Your task to perform on an android device: Turn off the flashlight Image 0: 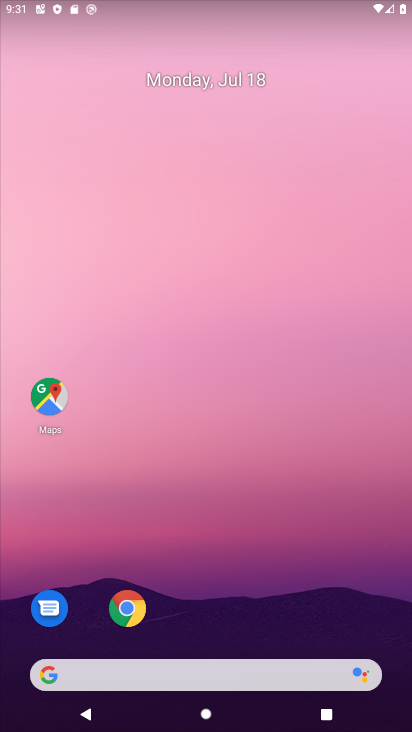
Step 0: drag from (209, 656) to (218, 168)
Your task to perform on an android device: Turn off the flashlight Image 1: 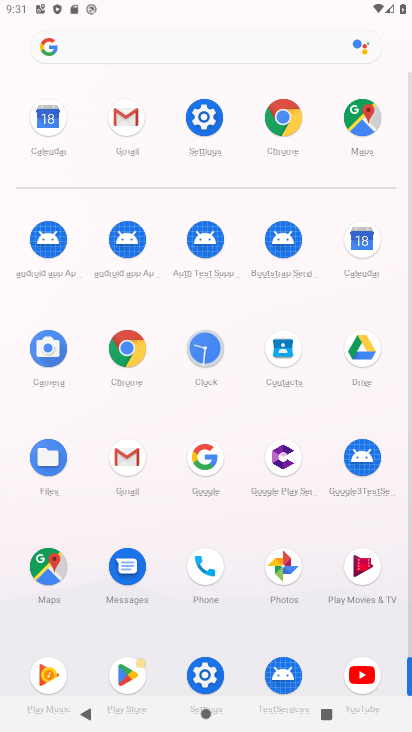
Step 1: click (195, 671)
Your task to perform on an android device: Turn off the flashlight Image 2: 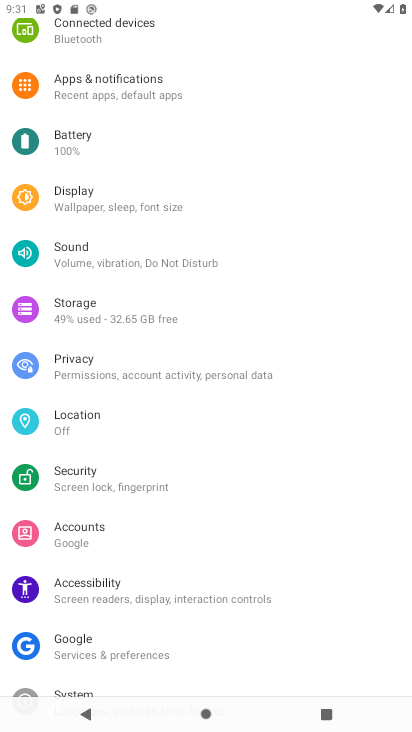
Step 2: drag from (204, 131) to (219, 493)
Your task to perform on an android device: Turn off the flashlight Image 3: 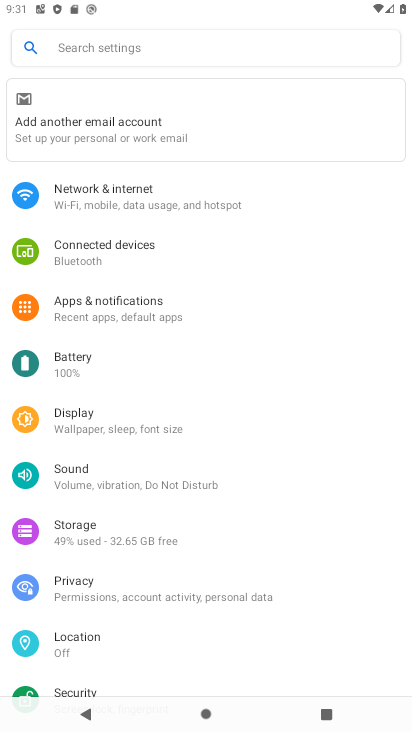
Step 3: click (149, 40)
Your task to perform on an android device: Turn off the flashlight Image 4: 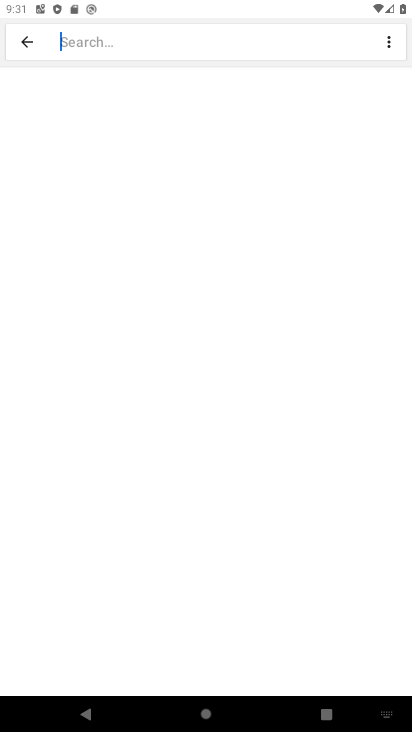
Step 4: type "flashlight"
Your task to perform on an android device: Turn off the flashlight Image 5: 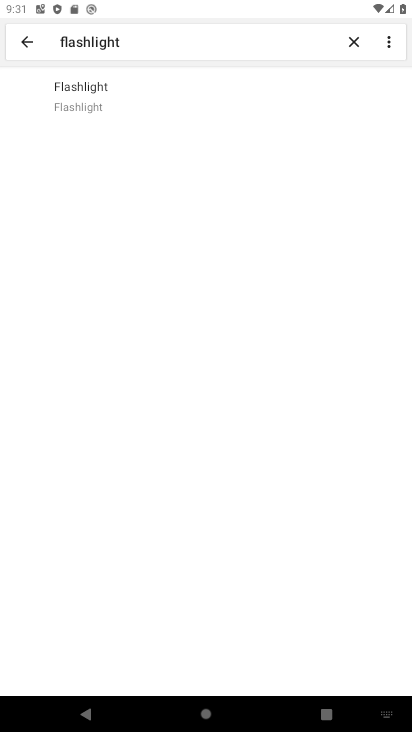
Step 5: click (81, 96)
Your task to perform on an android device: Turn off the flashlight Image 6: 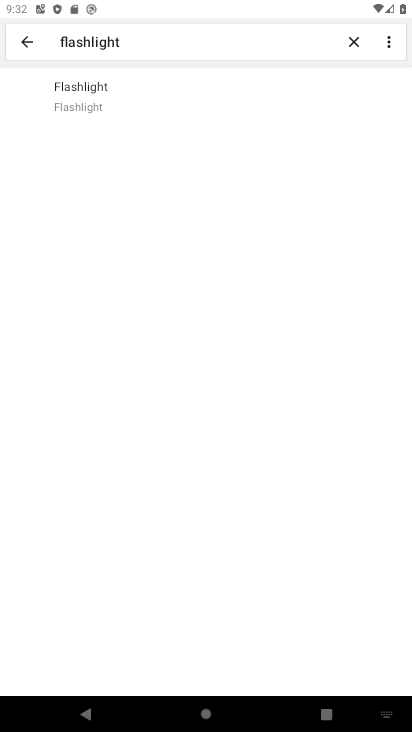
Step 6: click (79, 95)
Your task to perform on an android device: Turn off the flashlight Image 7: 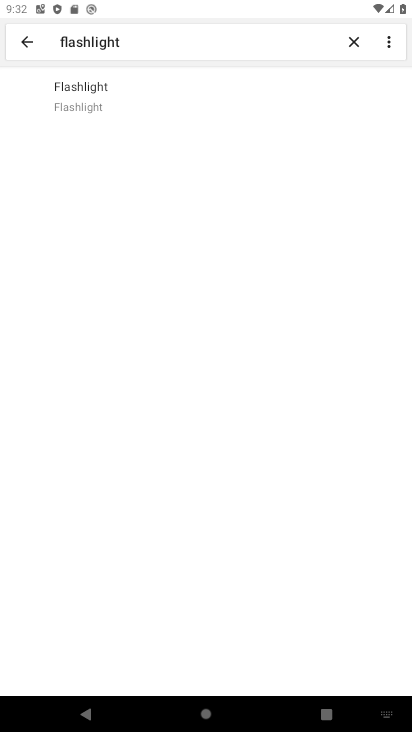
Step 7: click (78, 94)
Your task to perform on an android device: Turn off the flashlight Image 8: 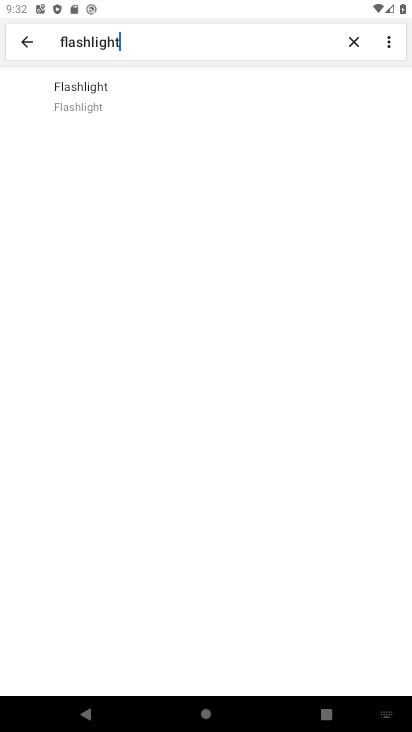
Step 8: click (78, 94)
Your task to perform on an android device: Turn off the flashlight Image 9: 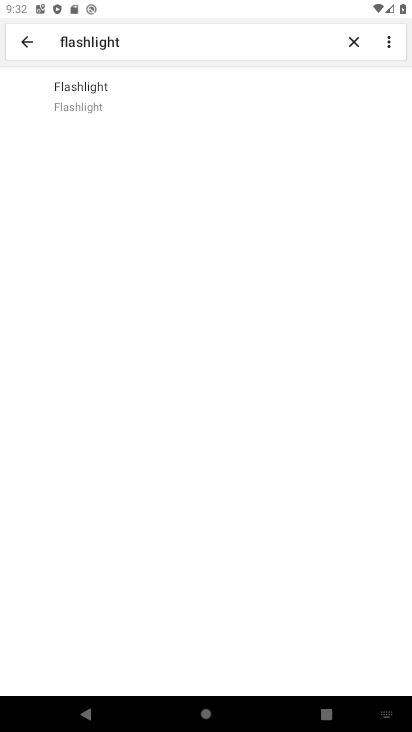
Step 9: task complete